Your task to perform on an android device: check the backup settings in the google photos Image 0: 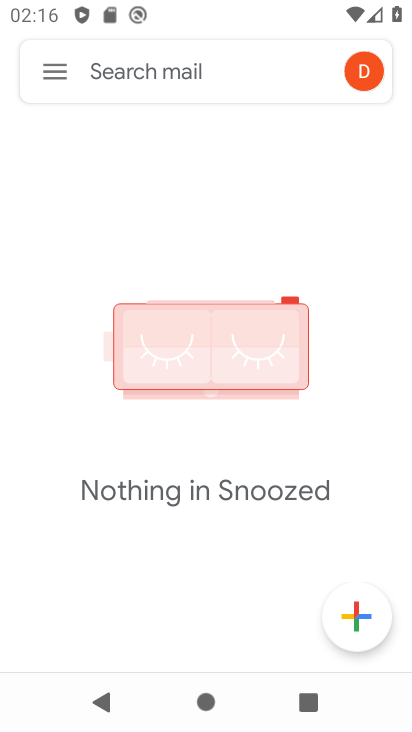
Step 0: press home button
Your task to perform on an android device: check the backup settings in the google photos Image 1: 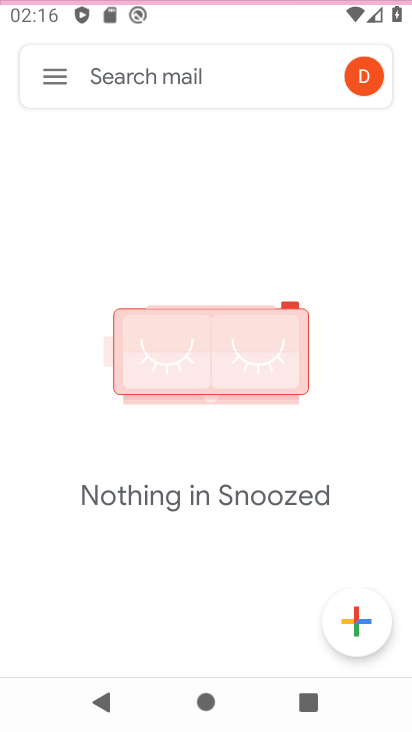
Step 1: drag from (194, 577) to (286, 0)
Your task to perform on an android device: check the backup settings in the google photos Image 2: 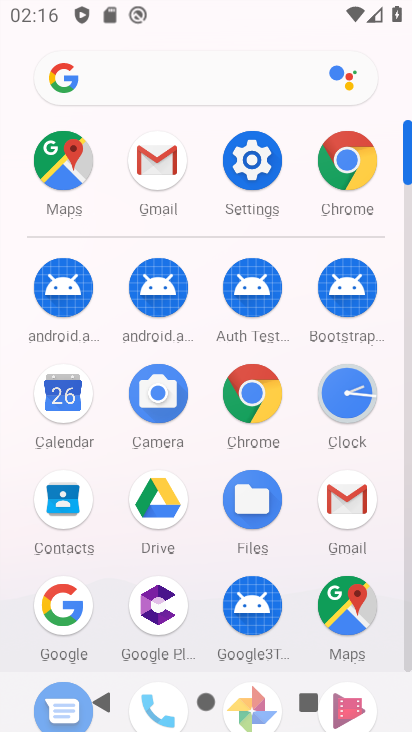
Step 2: click (339, 607)
Your task to perform on an android device: check the backup settings in the google photos Image 3: 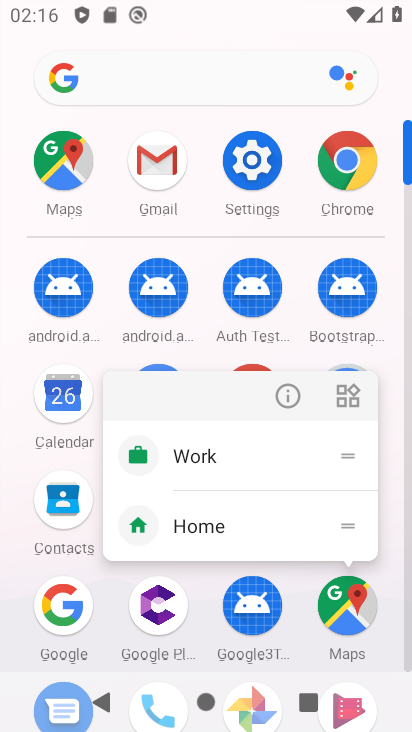
Step 3: click (204, 626)
Your task to perform on an android device: check the backup settings in the google photos Image 4: 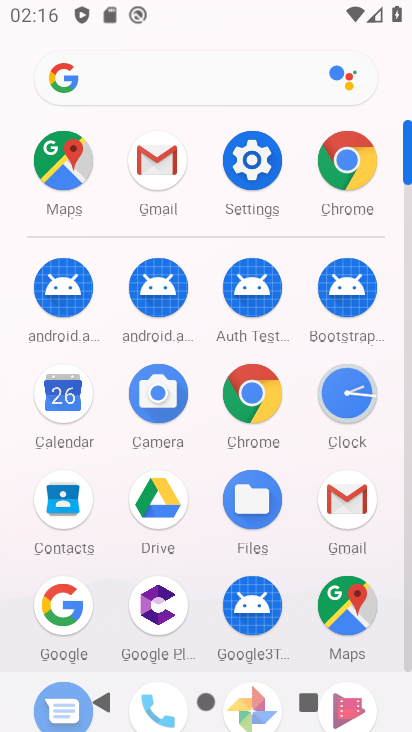
Step 4: drag from (204, 626) to (211, 207)
Your task to perform on an android device: check the backup settings in the google photos Image 5: 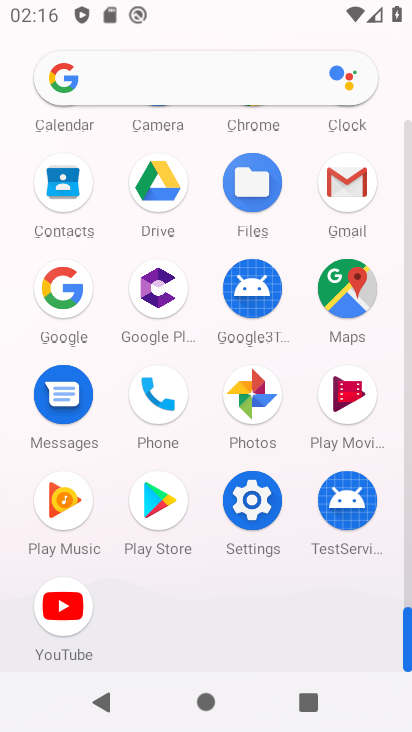
Step 5: click (240, 391)
Your task to perform on an android device: check the backup settings in the google photos Image 6: 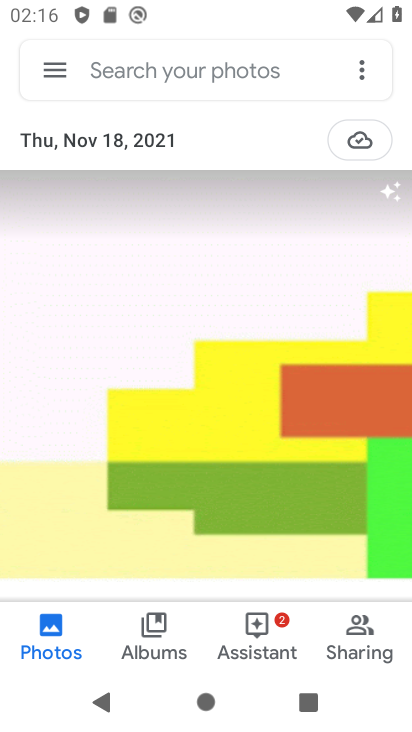
Step 6: click (44, 61)
Your task to perform on an android device: check the backup settings in the google photos Image 7: 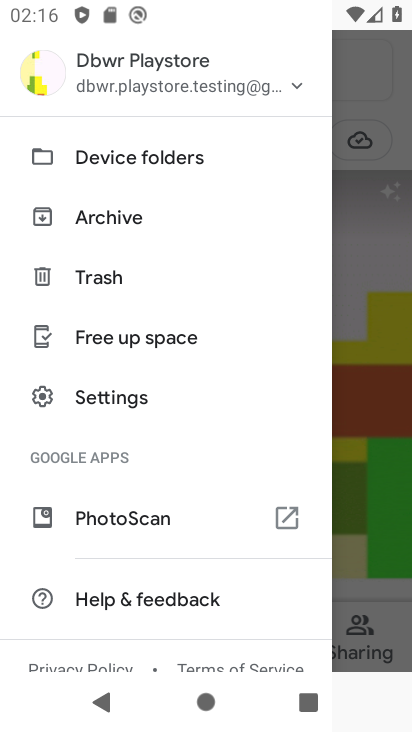
Step 7: click (115, 390)
Your task to perform on an android device: check the backup settings in the google photos Image 8: 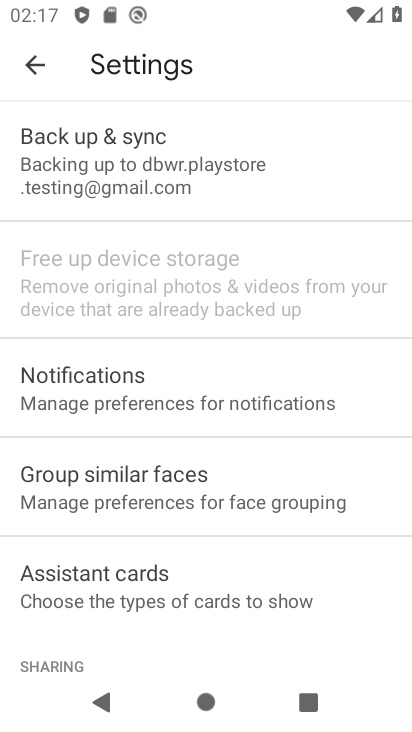
Step 8: click (177, 177)
Your task to perform on an android device: check the backup settings in the google photos Image 9: 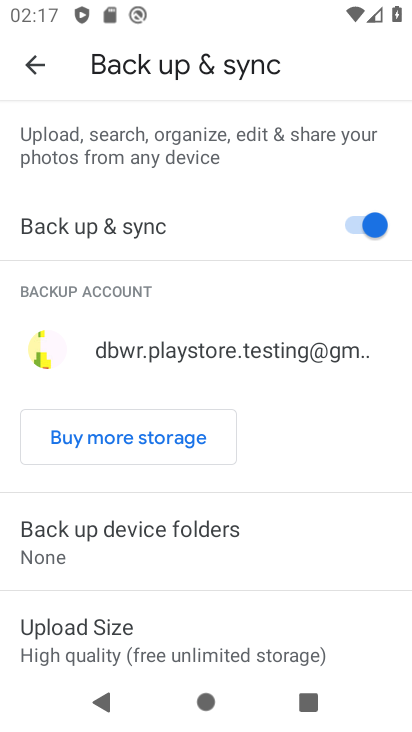
Step 9: task complete